Your task to perform on an android device: How much does a 2 bedroom apartment rent for in Boston? Image 0: 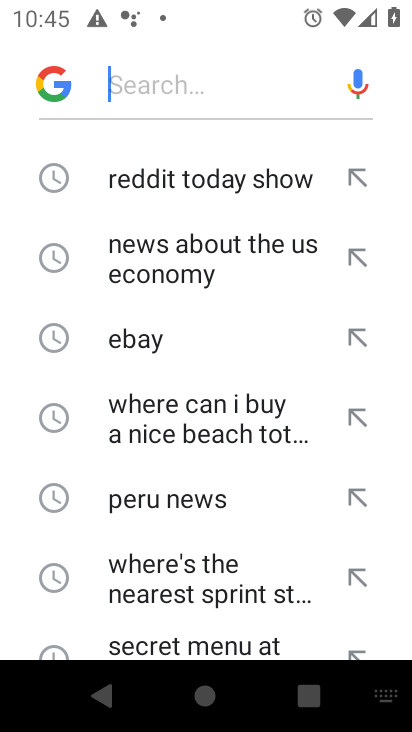
Step 0: type "https://www.youtube.com/watch?v=JhiT6l-MZm0"
Your task to perform on an android device: How much does a 2 bedroom apartment rent for in Boston? Image 1: 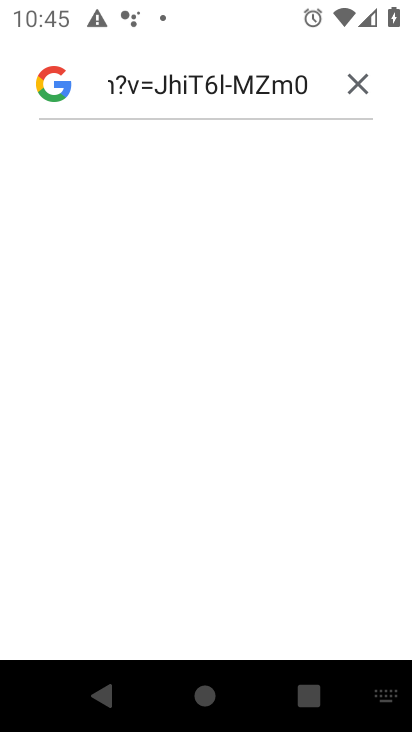
Step 1: click (351, 96)
Your task to perform on an android device: How much does a 2 bedroom apartment rent for in Boston? Image 2: 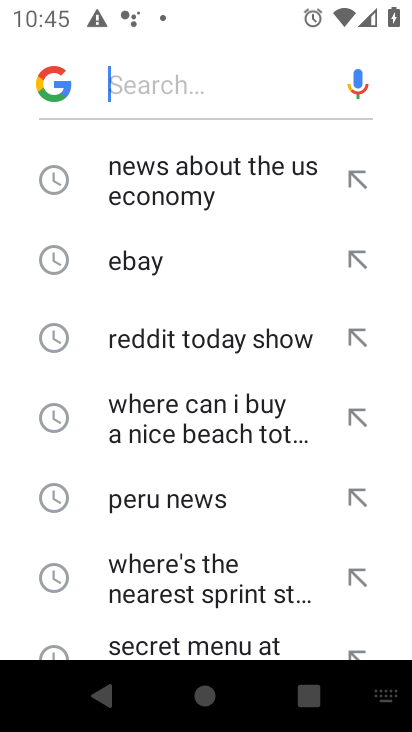
Step 2: type "2 bedroom apartment rent for in Boston"
Your task to perform on an android device: How much does a 2 bedroom apartment rent for in Boston? Image 3: 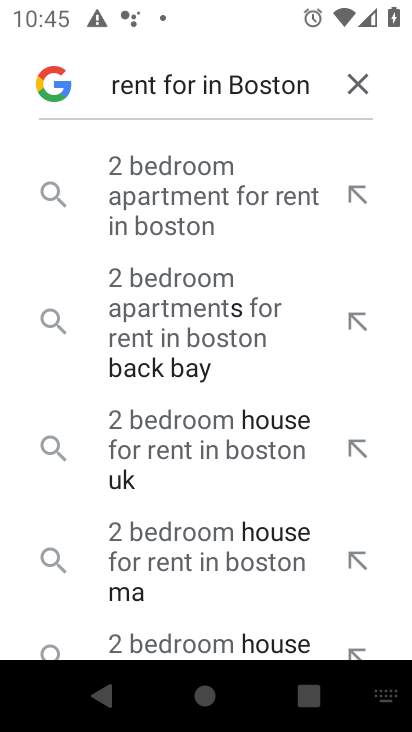
Step 3: click (253, 187)
Your task to perform on an android device: How much does a 2 bedroom apartment rent for in Boston? Image 4: 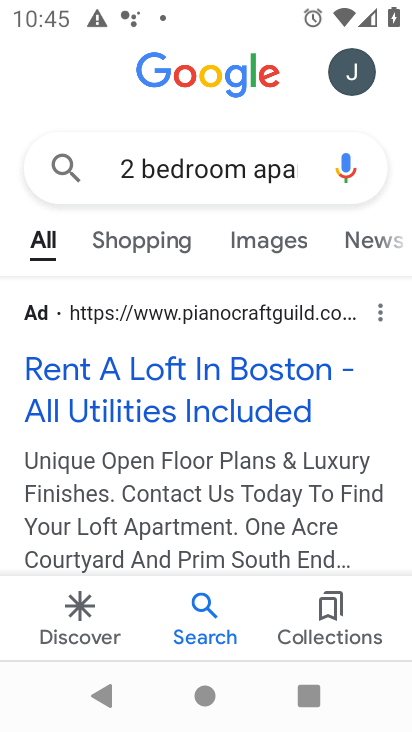
Step 4: click (132, 252)
Your task to perform on an android device: How much does a 2 bedroom apartment rent for in Boston? Image 5: 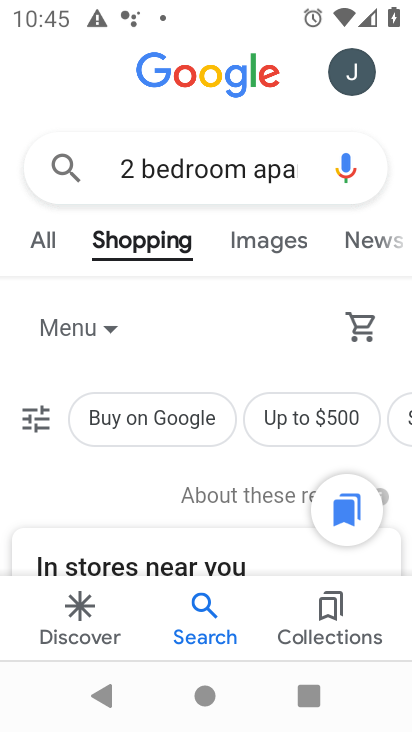
Step 5: task complete